Your task to perform on an android device: turn pop-ups on in chrome Image 0: 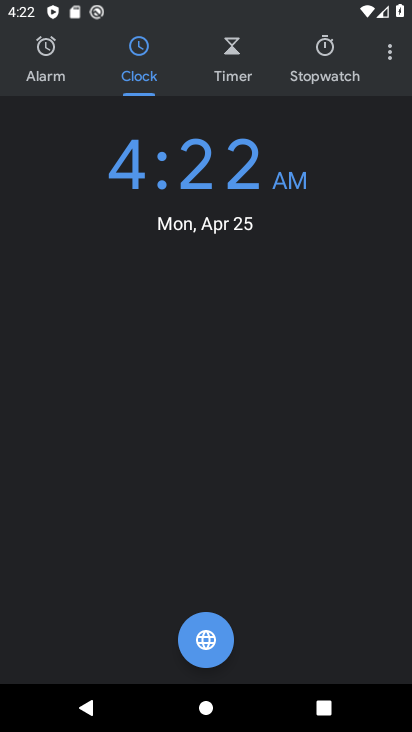
Step 0: press back button
Your task to perform on an android device: turn pop-ups on in chrome Image 1: 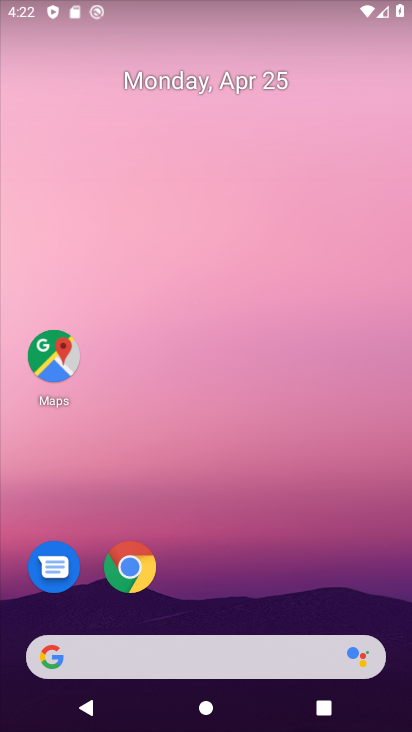
Step 1: drag from (211, 516) to (308, 41)
Your task to perform on an android device: turn pop-ups on in chrome Image 2: 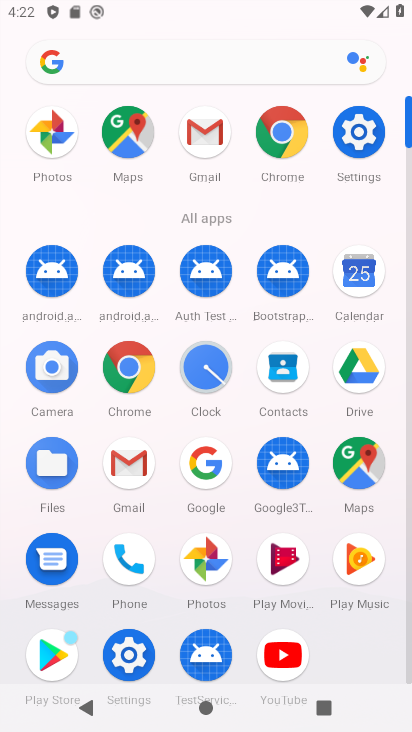
Step 2: click (363, 135)
Your task to perform on an android device: turn pop-ups on in chrome Image 3: 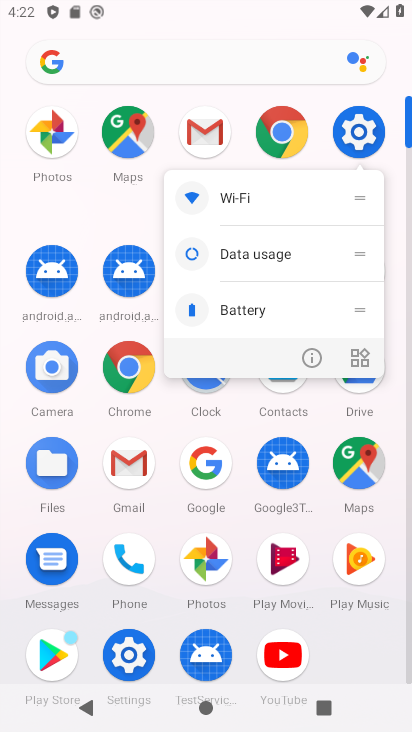
Step 3: click (287, 138)
Your task to perform on an android device: turn pop-ups on in chrome Image 4: 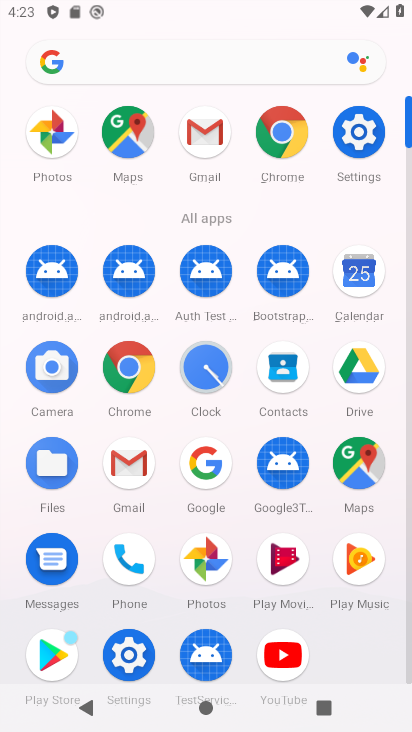
Step 4: click (286, 126)
Your task to perform on an android device: turn pop-ups on in chrome Image 5: 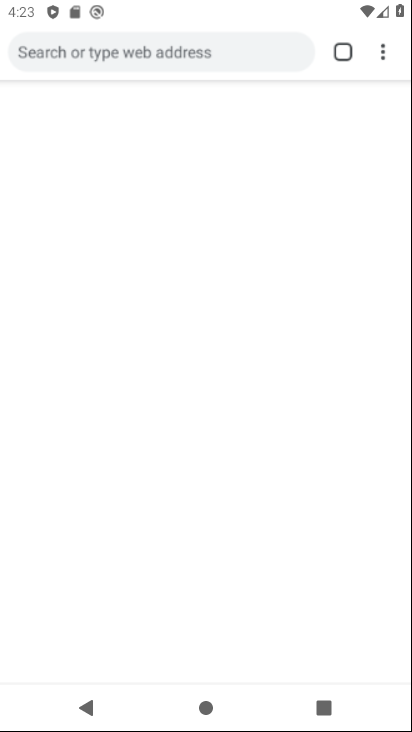
Step 5: drag from (386, 49) to (133, 578)
Your task to perform on an android device: turn pop-ups on in chrome Image 6: 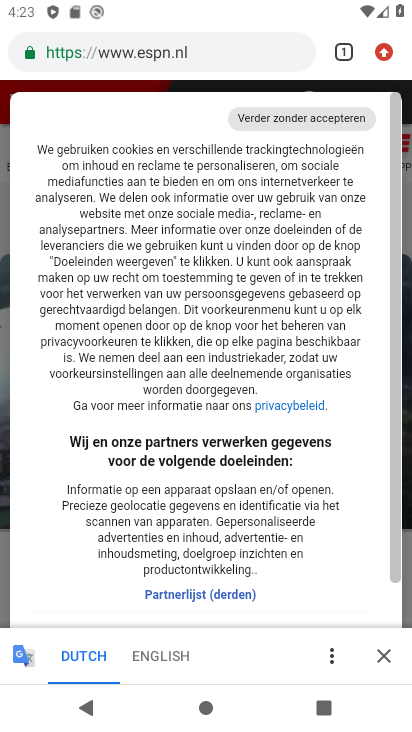
Step 6: drag from (379, 44) to (209, 603)
Your task to perform on an android device: turn pop-ups on in chrome Image 7: 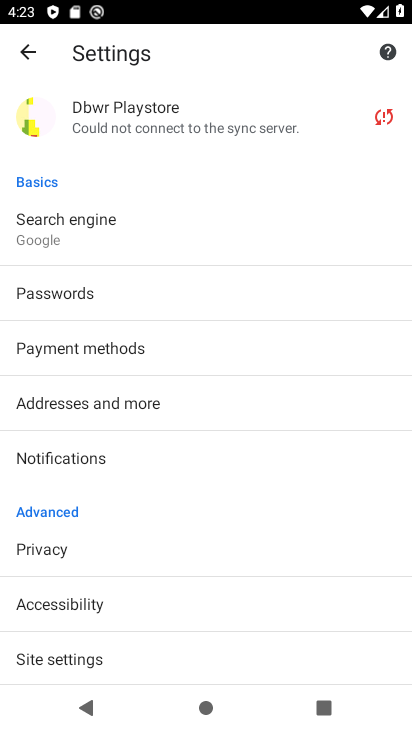
Step 7: drag from (106, 606) to (240, 158)
Your task to perform on an android device: turn pop-ups on in chrome Image 8: 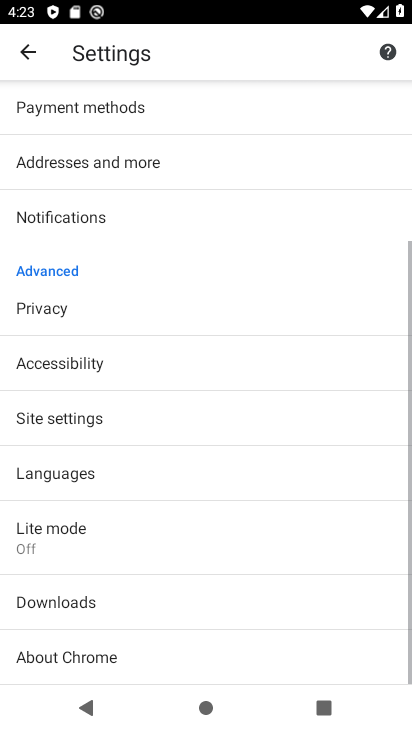
Step 8: click (52, 408)
Your task to perform on an android device: turn pop-ups on in chrome Image 9: 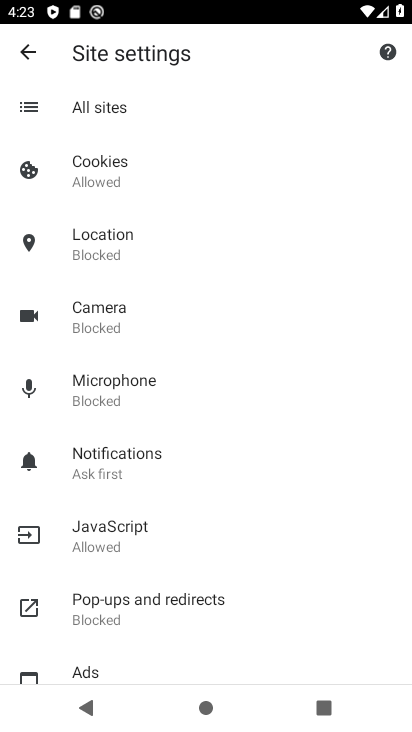
Step 9: click (129, 600)
Your task to perform on an android device: turn pop-ups on in chrome Image 10: 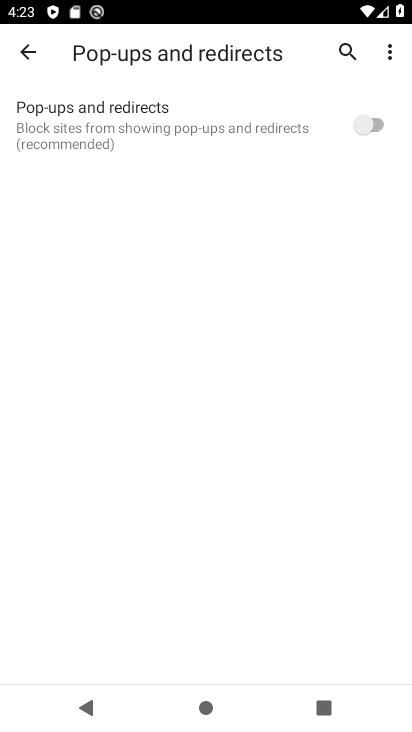
Step 10: click (361, 122)
Your task to perform on an android device: turn pop-ups on in chrome Image 11: 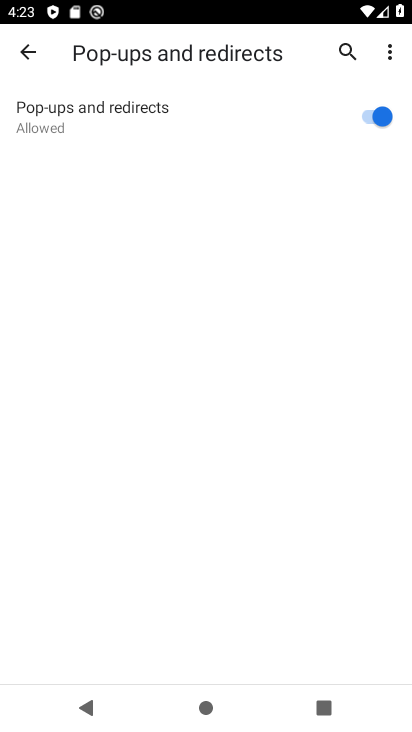
Step 11: task complete